Your task to perform on an android device: turn on airplane mode Image 0: 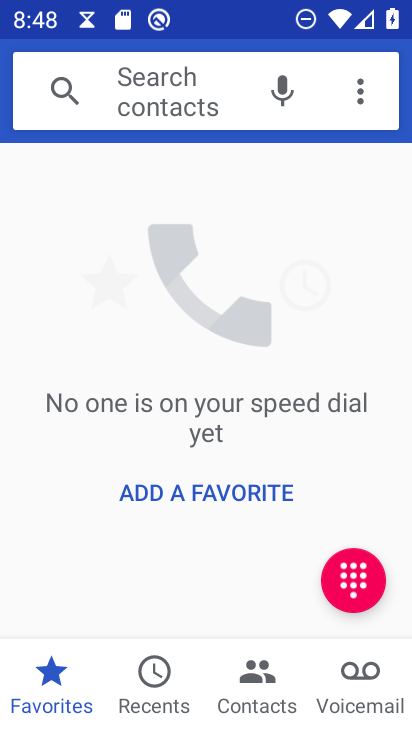
Step 0: press home button
Your task to perform on an android device: turn on airplane mode Image 1: 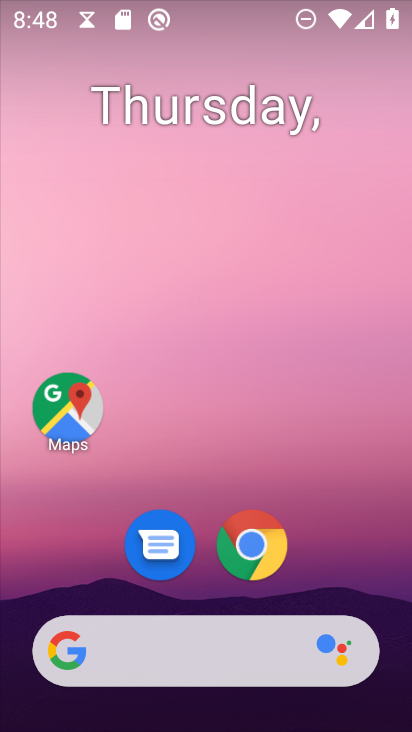
Step 1: drag from (351, 553) to (310, 151)
Your task to perform on an android device: turn on airplane mode Image 2: 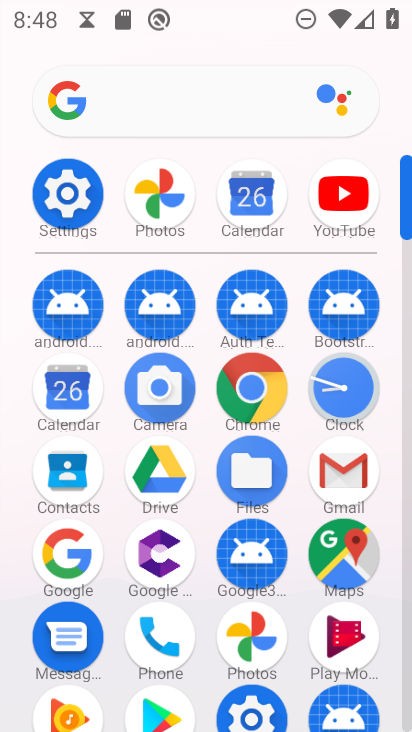
Step 2: click (67, 194)
Your task to perform on an android device: turn on airplane mode Image 3: 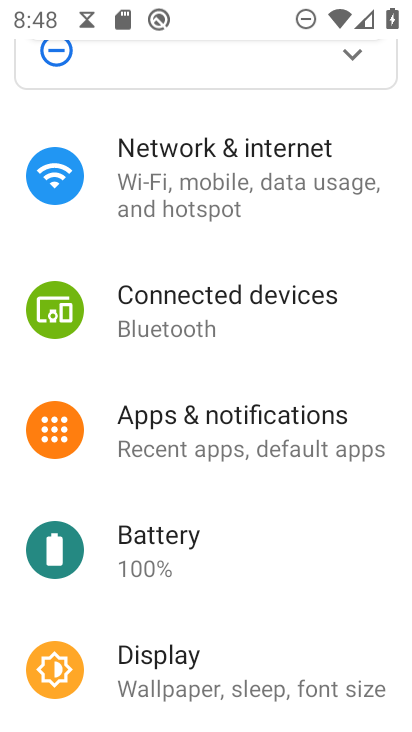
Step 3: click (243, 210)
Your task to perform on an android device: turn on airplane mode Image 4: 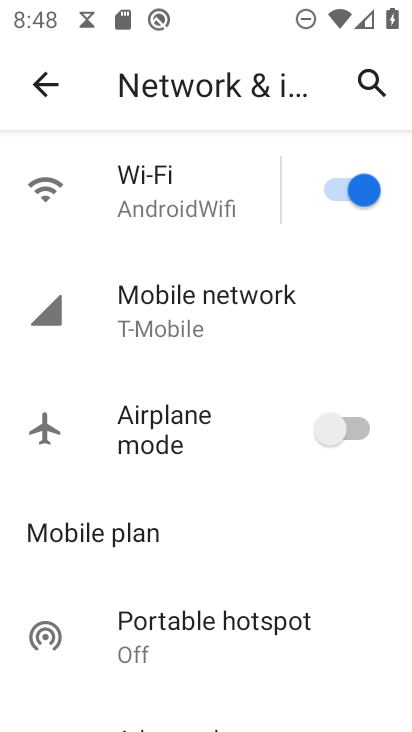
Step 4: click (324, 440)
Your task to perform on an android device: turn on airplane mode Image 5: 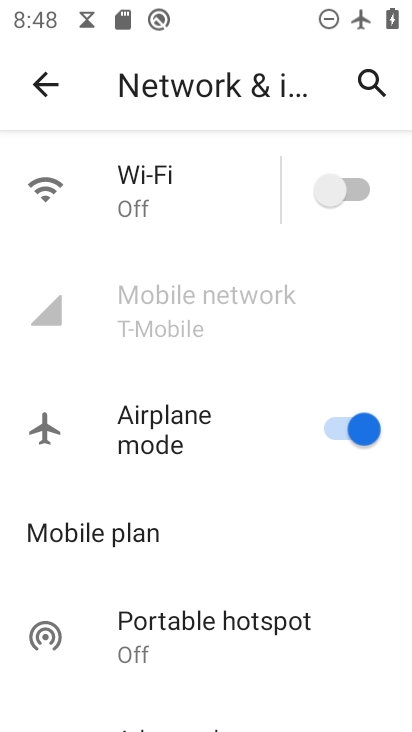
Step 5: task complete